Your task to perform on an android device: set the stopwatch Image 0: 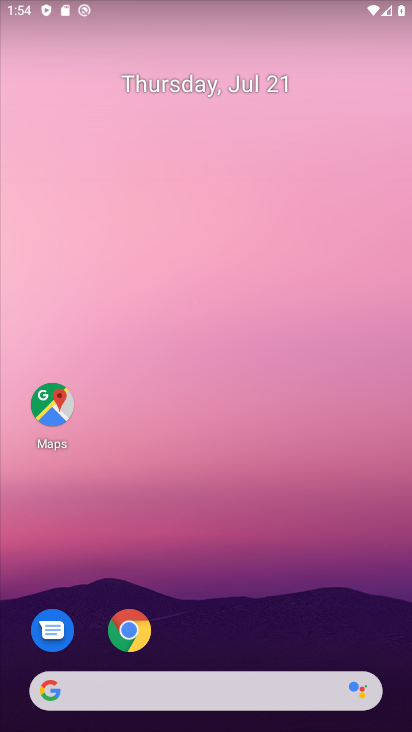
Step 0: drag from (203, 456) to (208, 21)
Your task to perform on an android device: set the stopwatch Image 1: 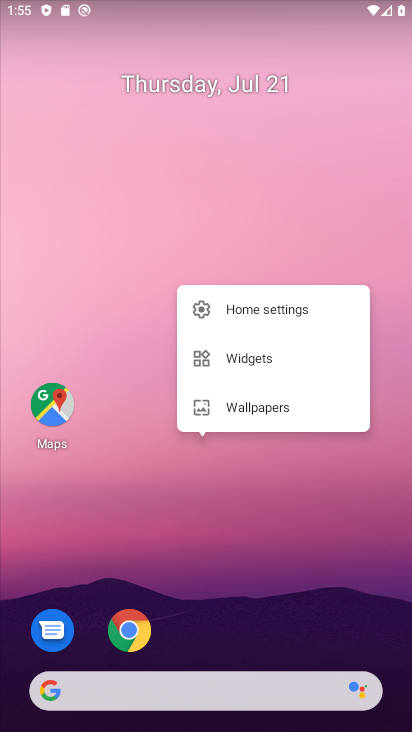
Step 1: drag from (196, 631) to (203, 48)
Your task to perform on an android device: set the stopwatch Image 2: 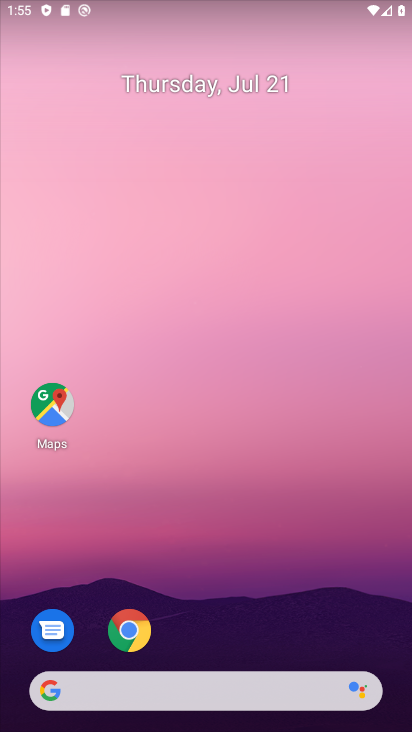
Step 2: drag from (207, 640) to (198, 22)
Your task to perform on an android device: set the stopwatch Image 3: 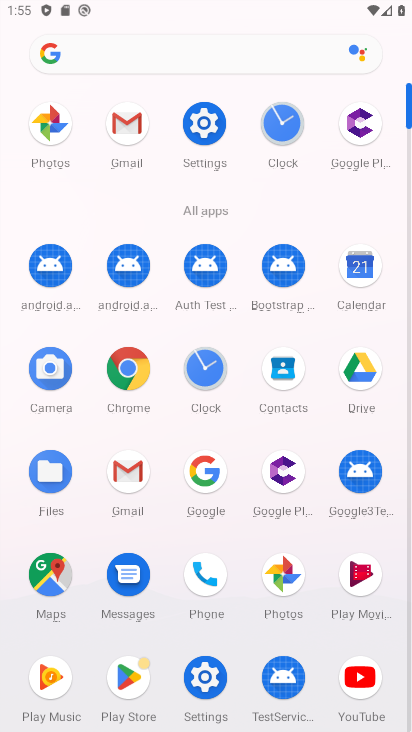
Step 3: click (283, 120)
Your task to perform on an android device: set the stopwatch Image 4: 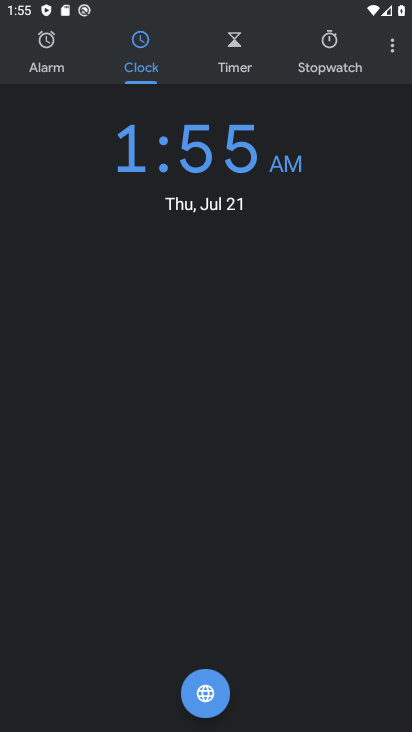
Step 4: click (338, 72)
Your task to perform on an android device: set the stopwatch Image 5: 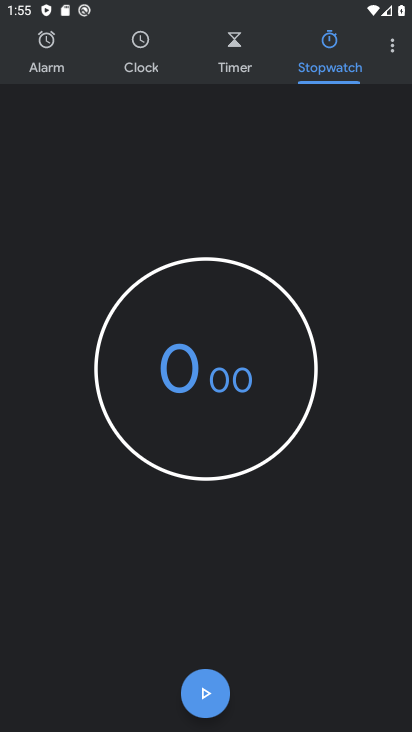
Step 5: click (338, 72)
Your task to perform on an android device: set the stopwatch Image 6: 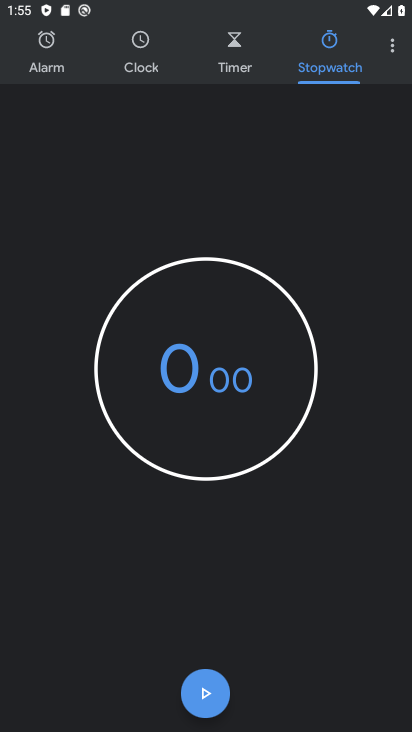
Step 6: click (194, 691)
Your task to perform on an android device: set the stopwatch Image 7: 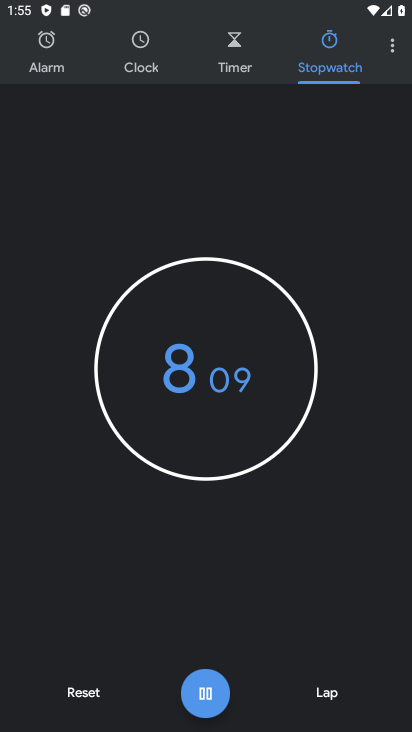
Step 7: task complete